Your task to perform on an android device: add a contact in the contacts app Image 0: 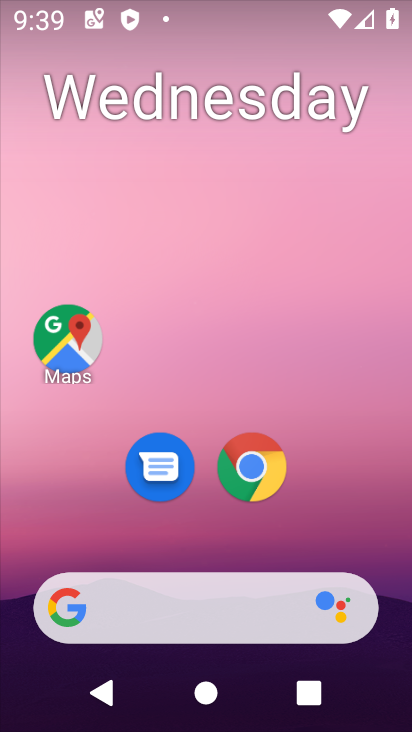
Step 0: drag from (326, 502) to (261, 89)
Your task to perform on an android device: add a contact in the contacts app Image 1: 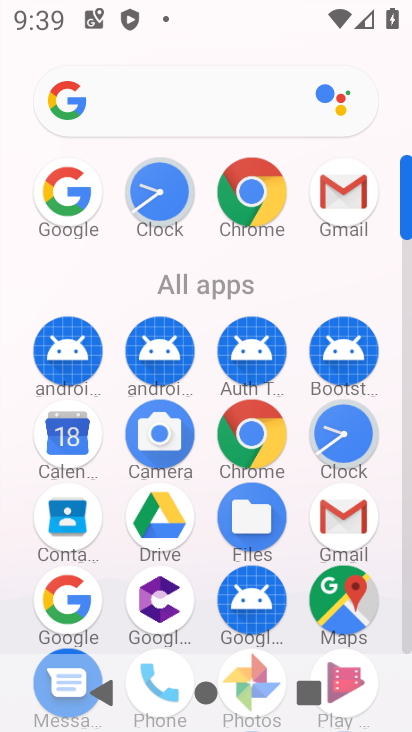
Step 1: click (65, 521)
Your task to perform on an android device: add a contact in the contacts app Image 2: 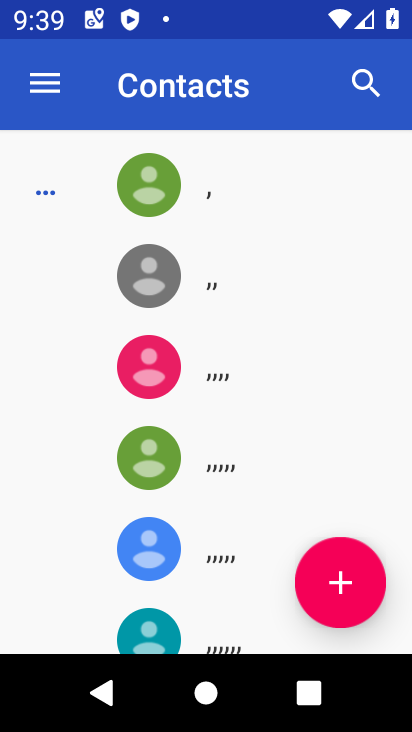
Step 2: click (361, 573)
Your task to perform on an android device: add a contact in the contacts app Image 3: 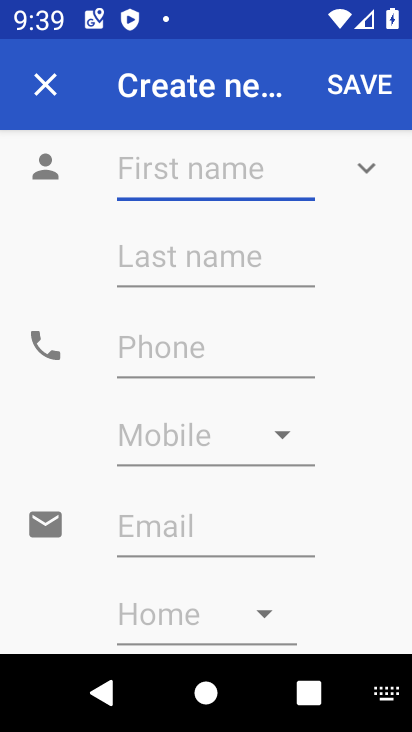
Step 3: type "fdgdfgs"
Your task to perform on an android device: add a contact in the contacts app Image 4: 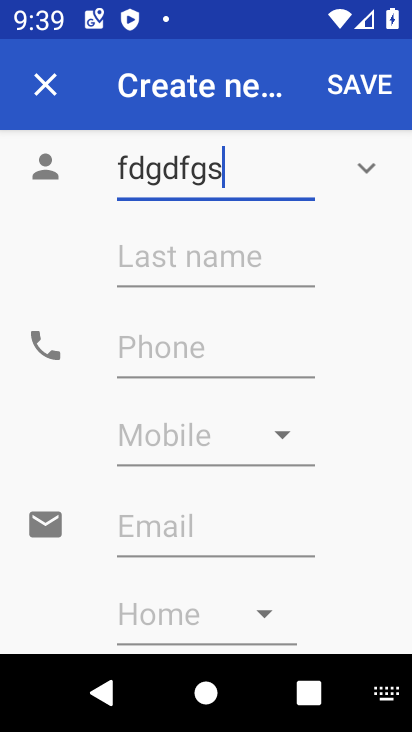
Step 4: click (196, 258)
Your task to perform on an android device: add a contact in the contacts app Image 5: 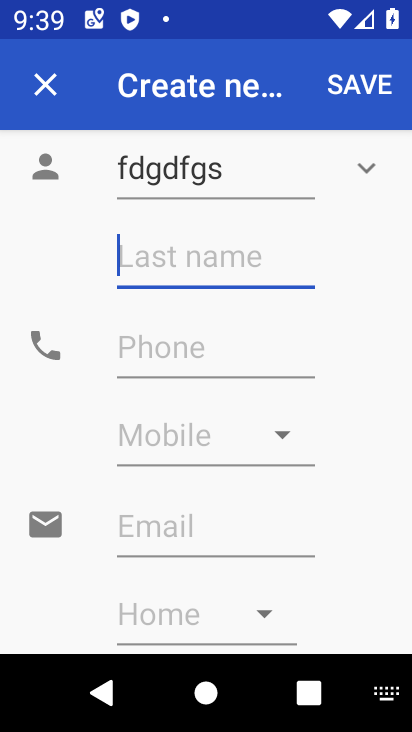
Step 5: type "fgsdfg"
Your task to perform on an android device: add a contact in the contacts app Image 6: 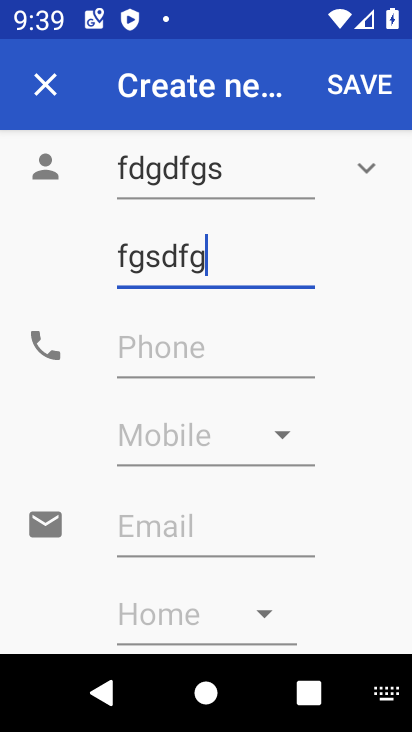
Step 6: type ""
Your task to perform on an android device: add a contact in the contacts app Image 7: 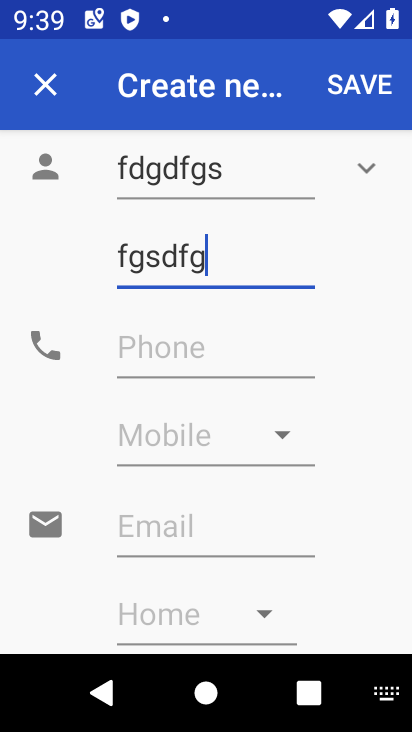
Step 7: click (264, 365)
Your task to perform on an android device: add a contact in the contacts app Image 8: 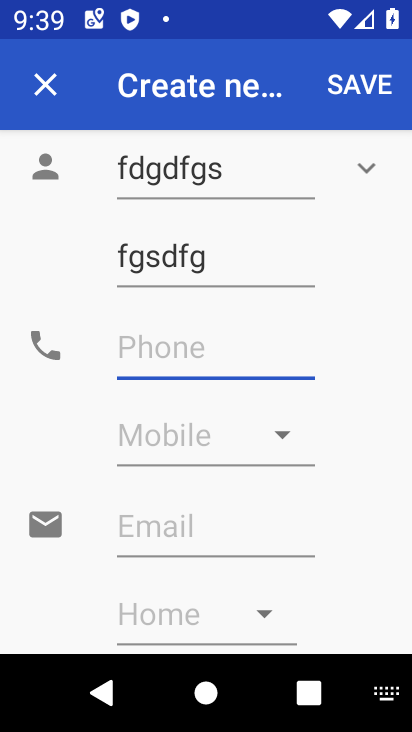
Step 8: type "5634563456"
Your task to perform on an android device: add a contact in the contacts app Image 9: 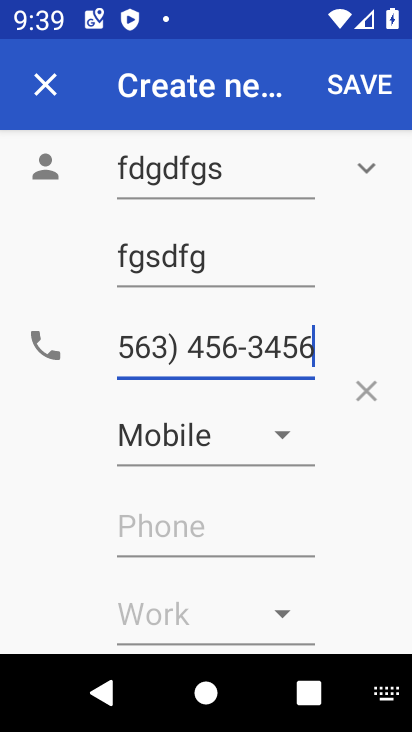
Step 9: click (354, 83)
Your task to perform on an android device: add a contact in the contacts app Image 10: 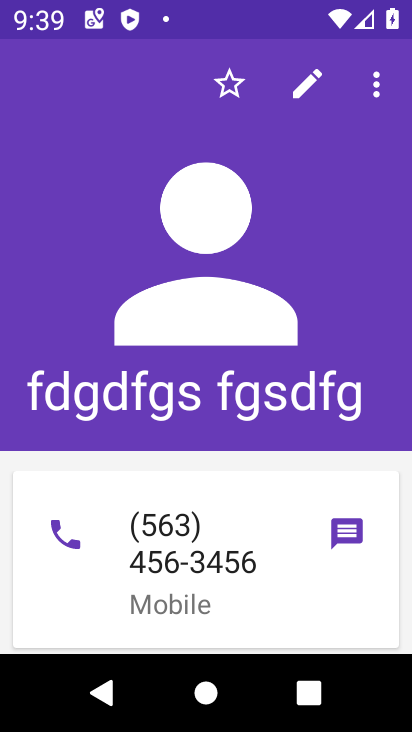
Step 10: task complete